Your task to perform on an android device: manage bookmarks in the chrome app Image 0: 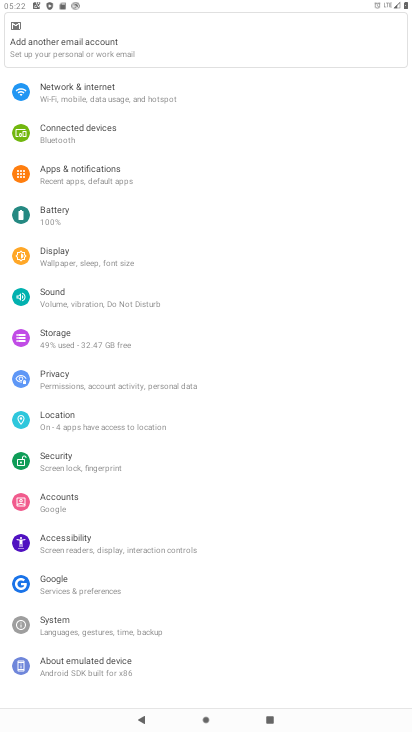
Step 0: press home button
Your task to perform on an android device: manage bookmarks in the chrome app Image 1: 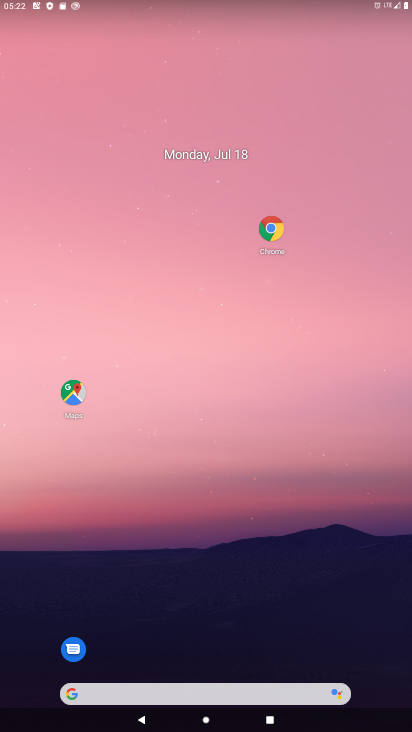
Step 1: click (258, 237)
Your task to perform on an android device: manage bookmarks in the chrome app Image 2: 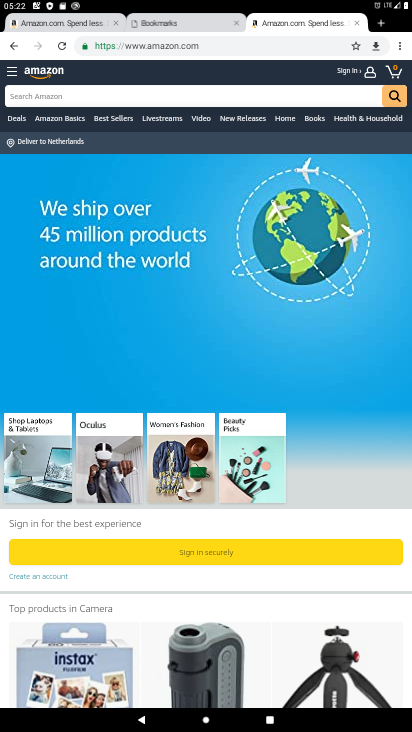
Step 2: click (406, 52)
Your task to perform on an android device: manage bookmarks in the chrome app Image 3: 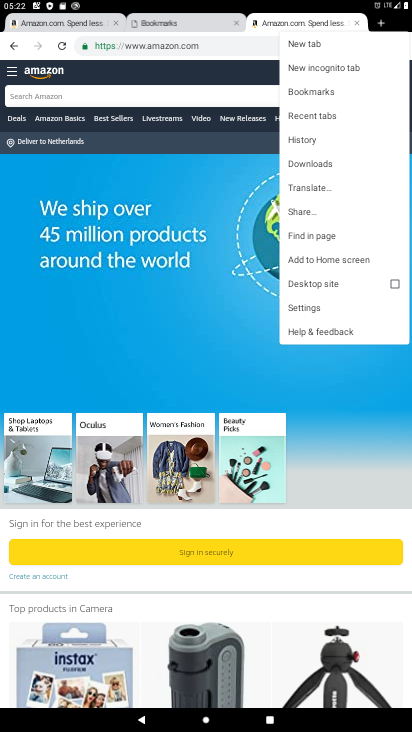
Step 3: click (319, 97)
Your task to perform on an android device: manage bookmarks in the chrome app Image 4: 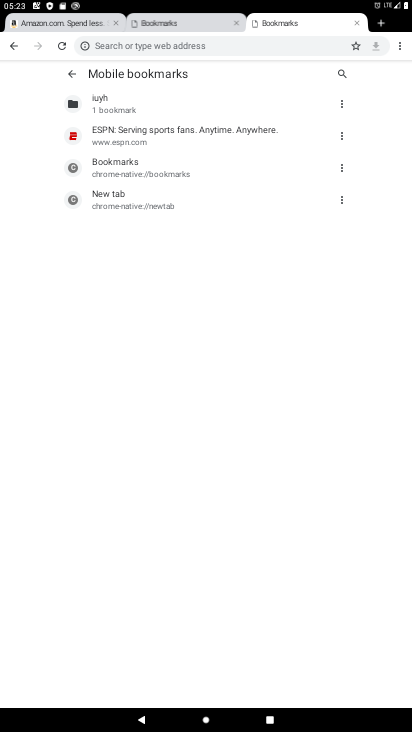
Step 4: click (335, 207)
Your task to perform on an android device: manage bookmarks in the chrome app Image 5: 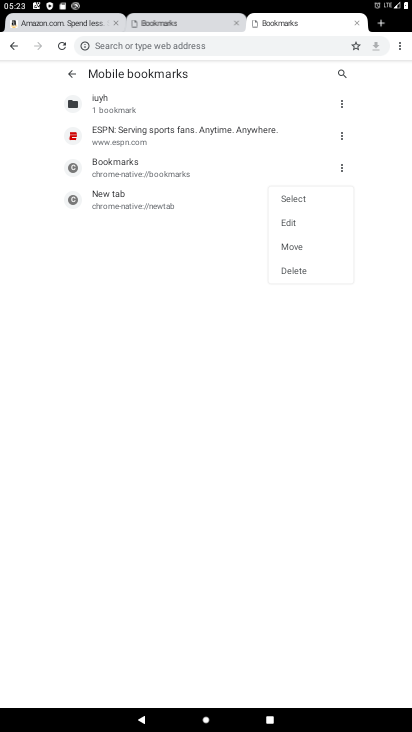
Step 5: click (298, 273)
Your task to perform on an android device: manage bookmarks in the chrome app Image 6: 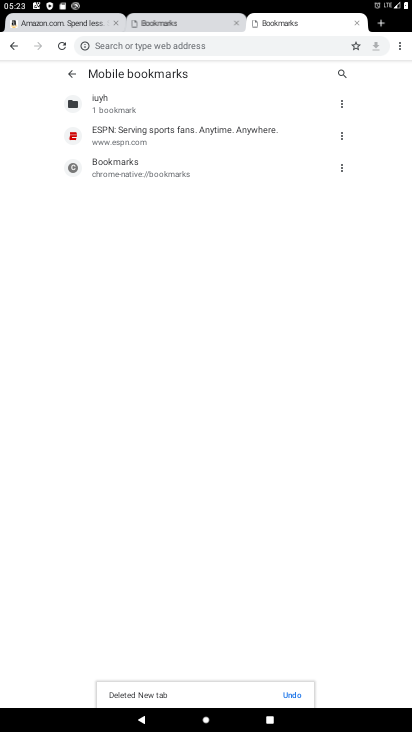
Step 6: task complete